Your task to perform on an android device: turn on improve location accuracy Image 0: 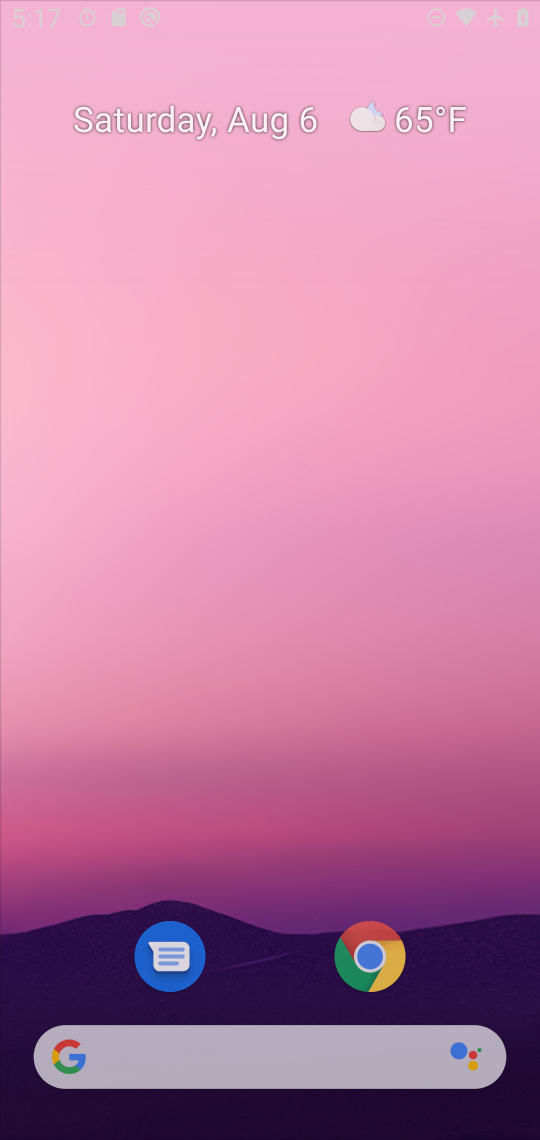
Step 0: press home button
Your task to perform on an android device: turn on improve location accuracy Image 1: 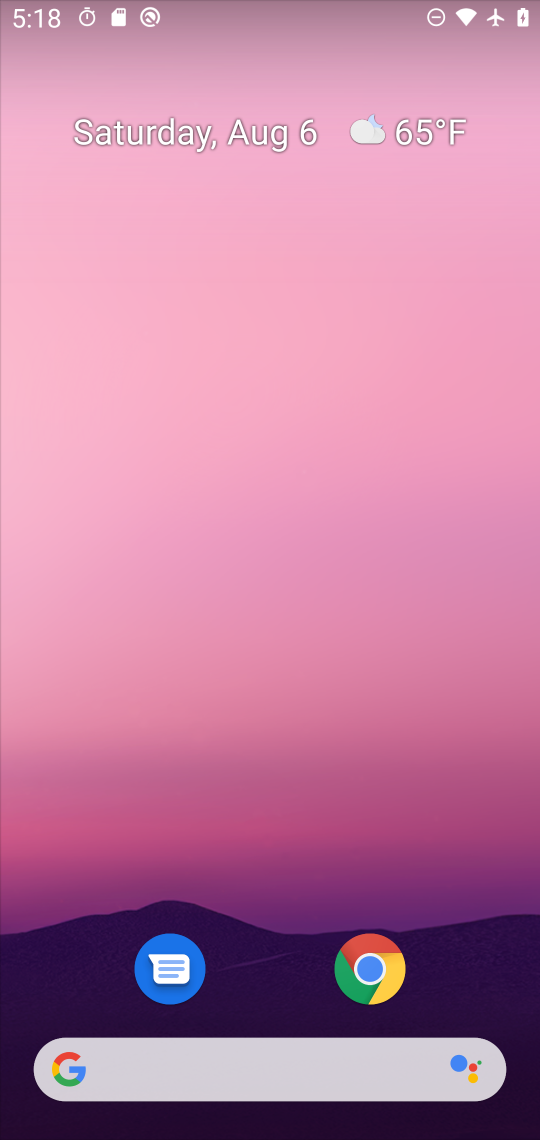
Step 1: drag from (258, 663) to (242, 242)
Your task to perform on an android device: turn on improve location accuracy Image 2: 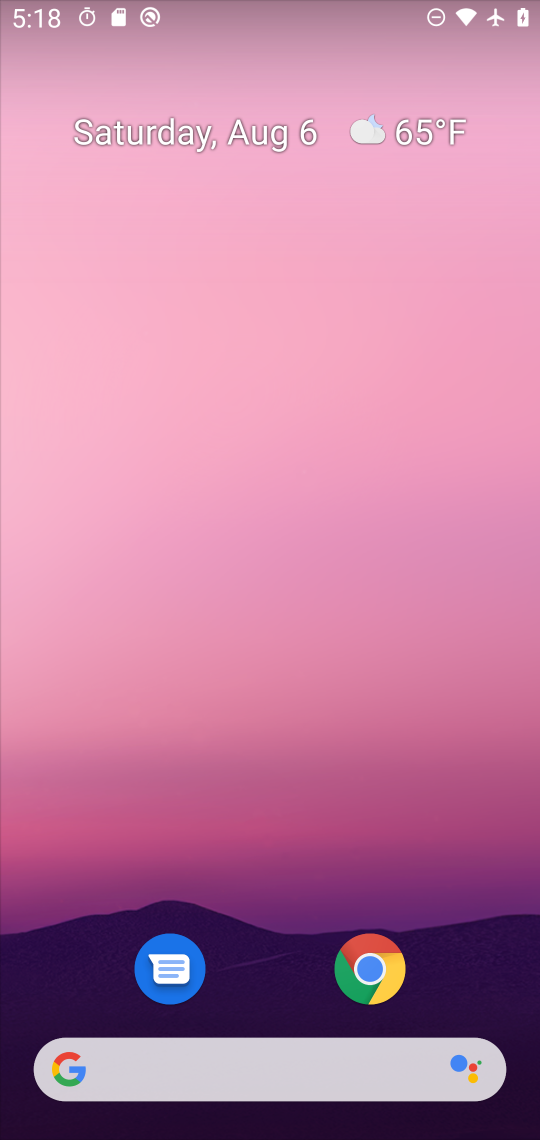
Step 2: drag from (238, 942) to (236, 285)
Your task to perform on an android device: turn on improve location accuracy Image 3: 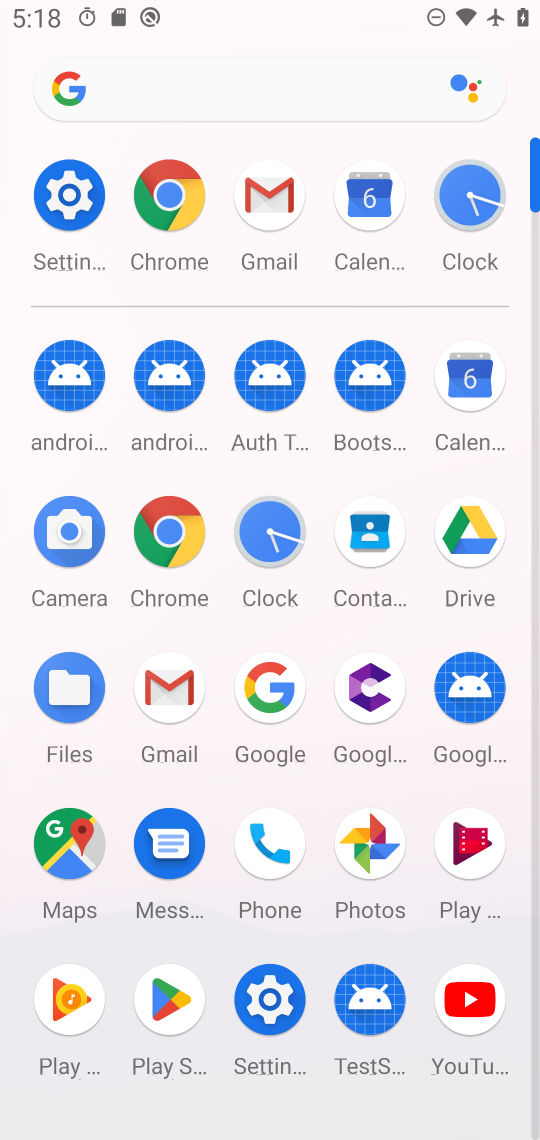
Step 3: click (78, 206)
Your task to perform on an android device: turn on improve location accuracy Image 4: 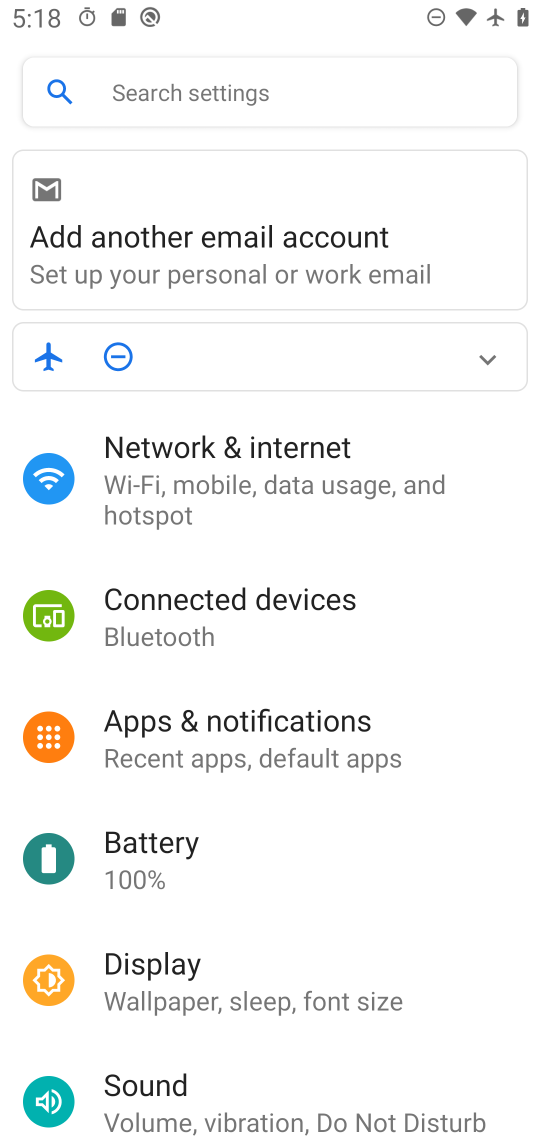
Step 4: drag from (354, 1042) to (322, 452)
Your task to perform on an android device: turn on improve location accuracy Image 5: 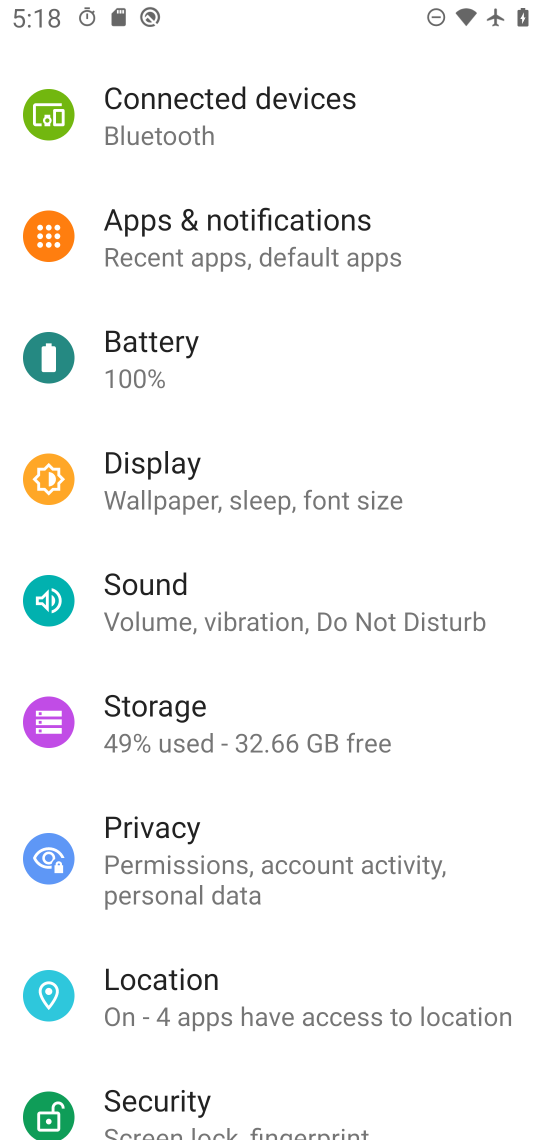
Step 5: click (210, 992)
Your task to perform on an android device: turn on improve location accuracy Image 6: 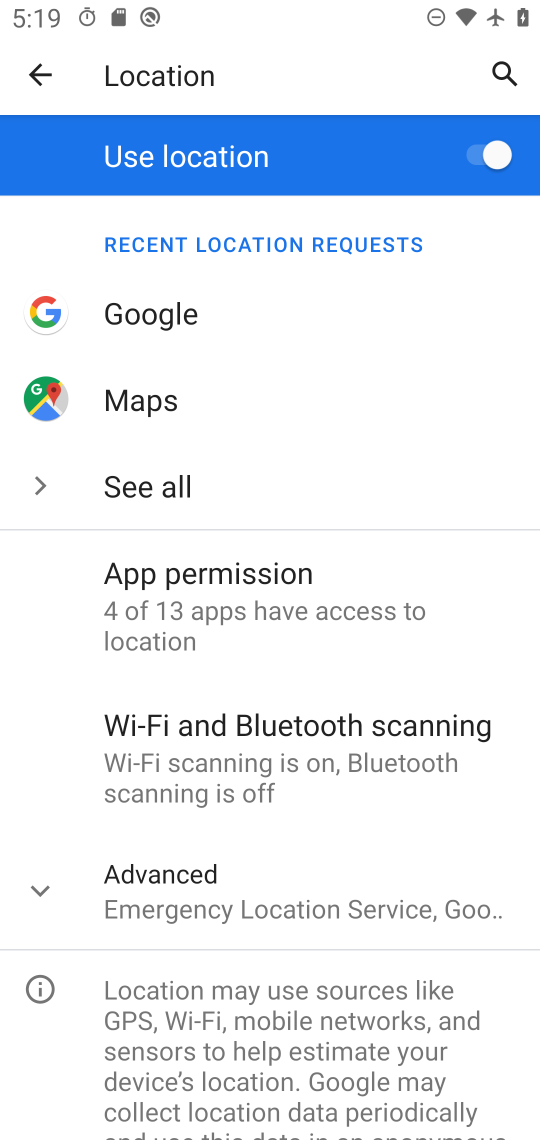
Step 6: click (170, 884)
Your task to perform on an android device: turn on improve location accuracy Image 7: 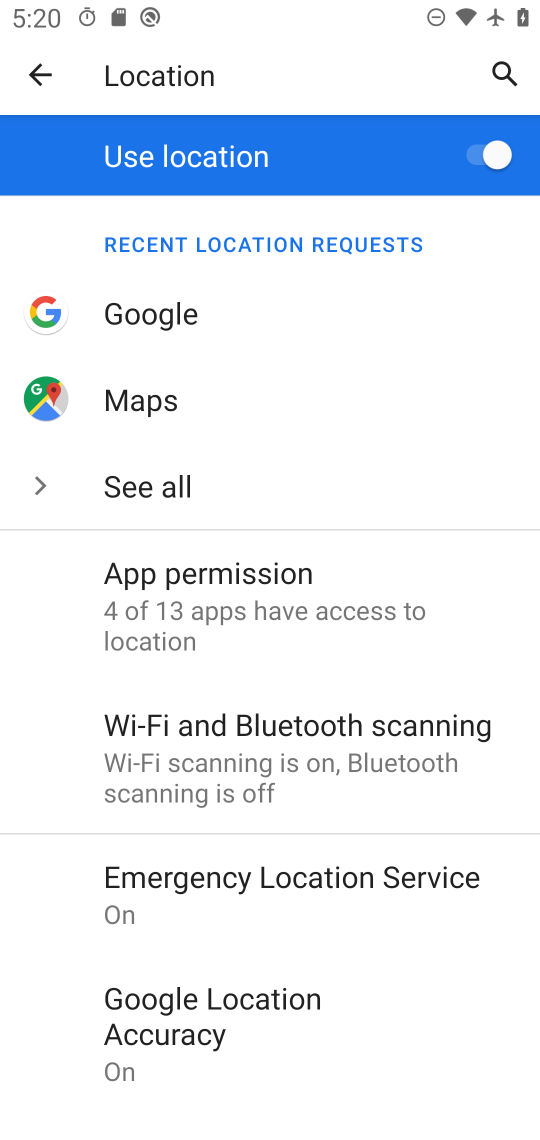
Step 7: drag from (398, 999) to (400, 340)
Your task to perform on an android device: turn on improve location accuracy Image 8: 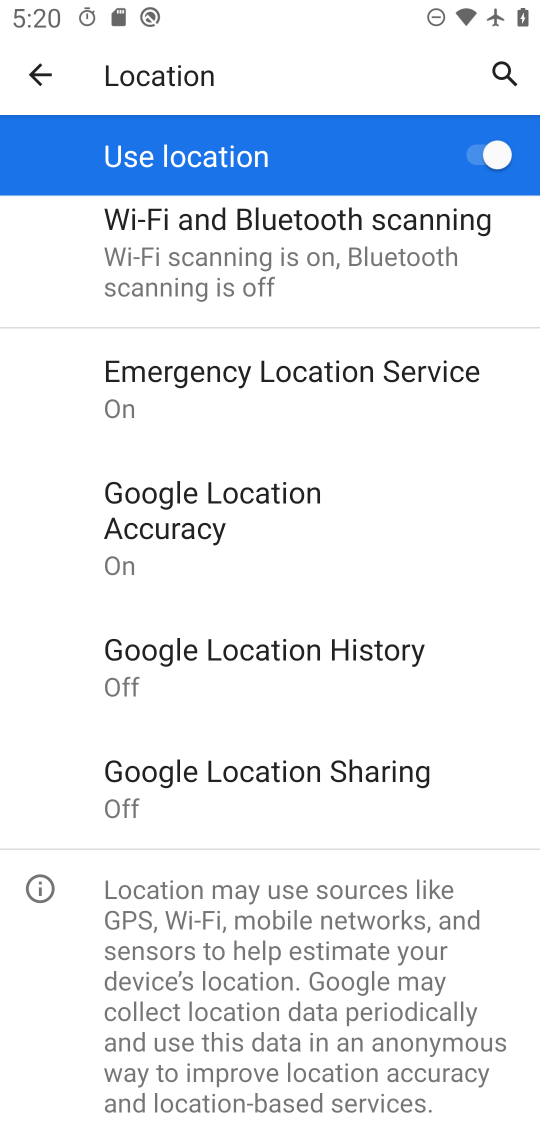
Step 8: click (173, 508)
Your task to perform on an android device: turn on improve location accuracy Image 9: 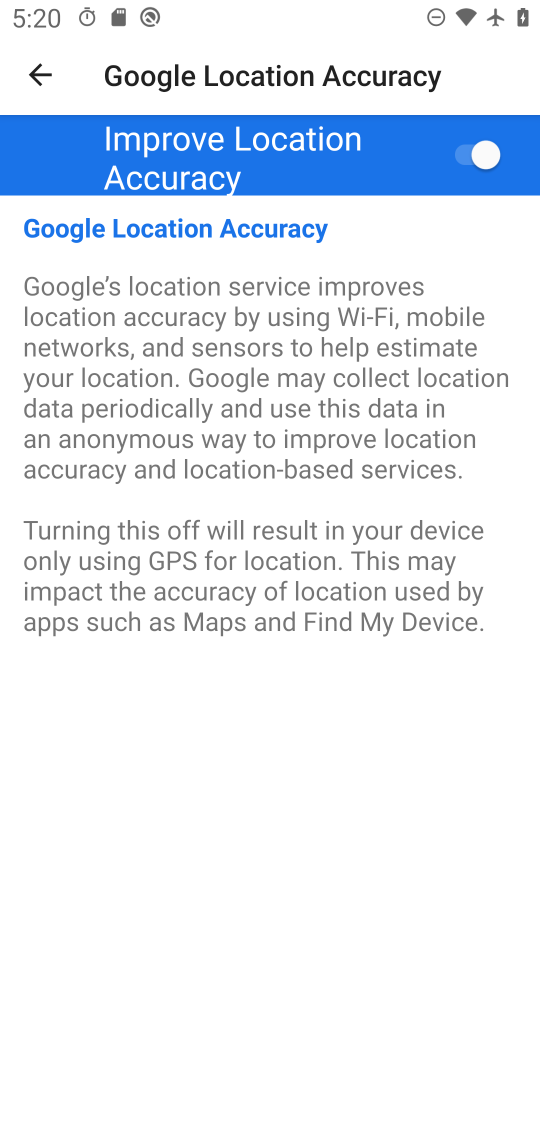
Step 9: task complete